Your task to perform on an android device: What's the weather today? Image 0: 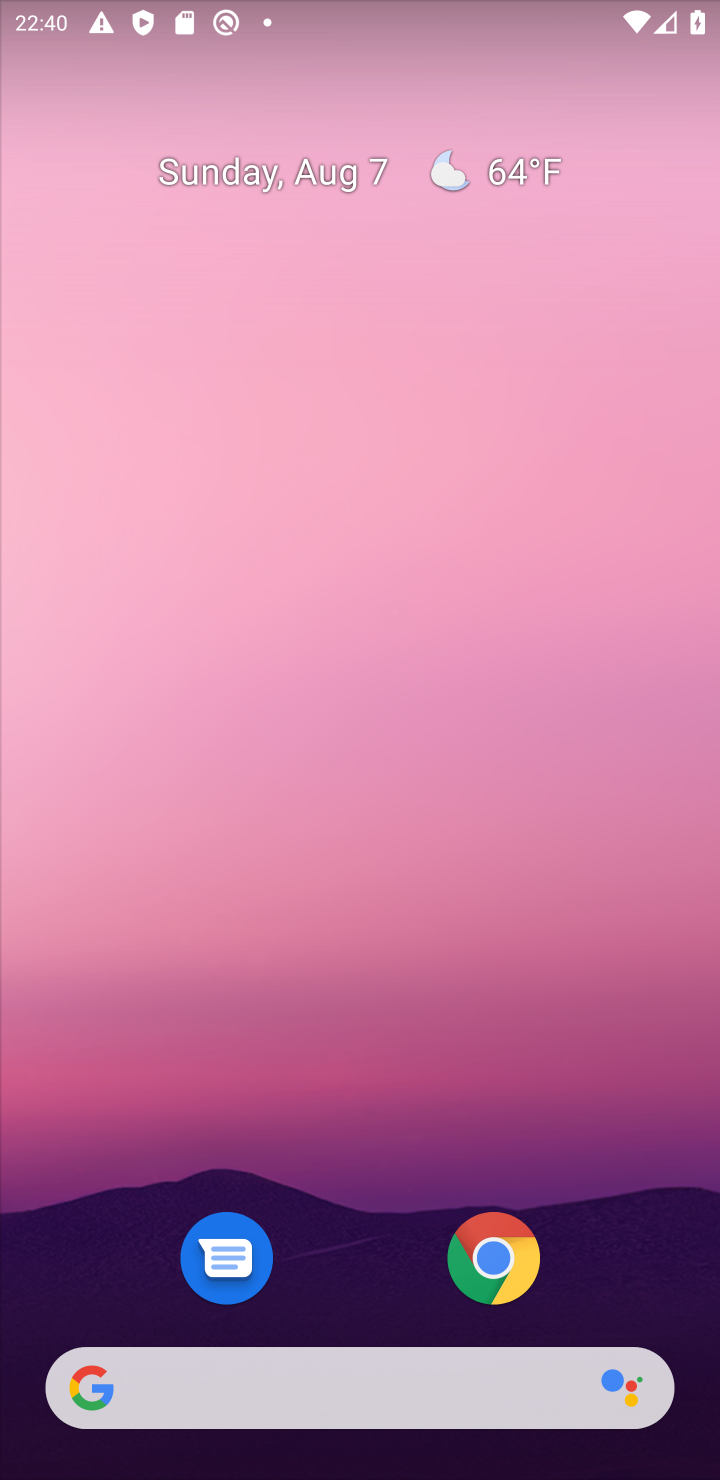
Step 0: press home button
Your task to perform on an android device: What's the weather today? Image 1: 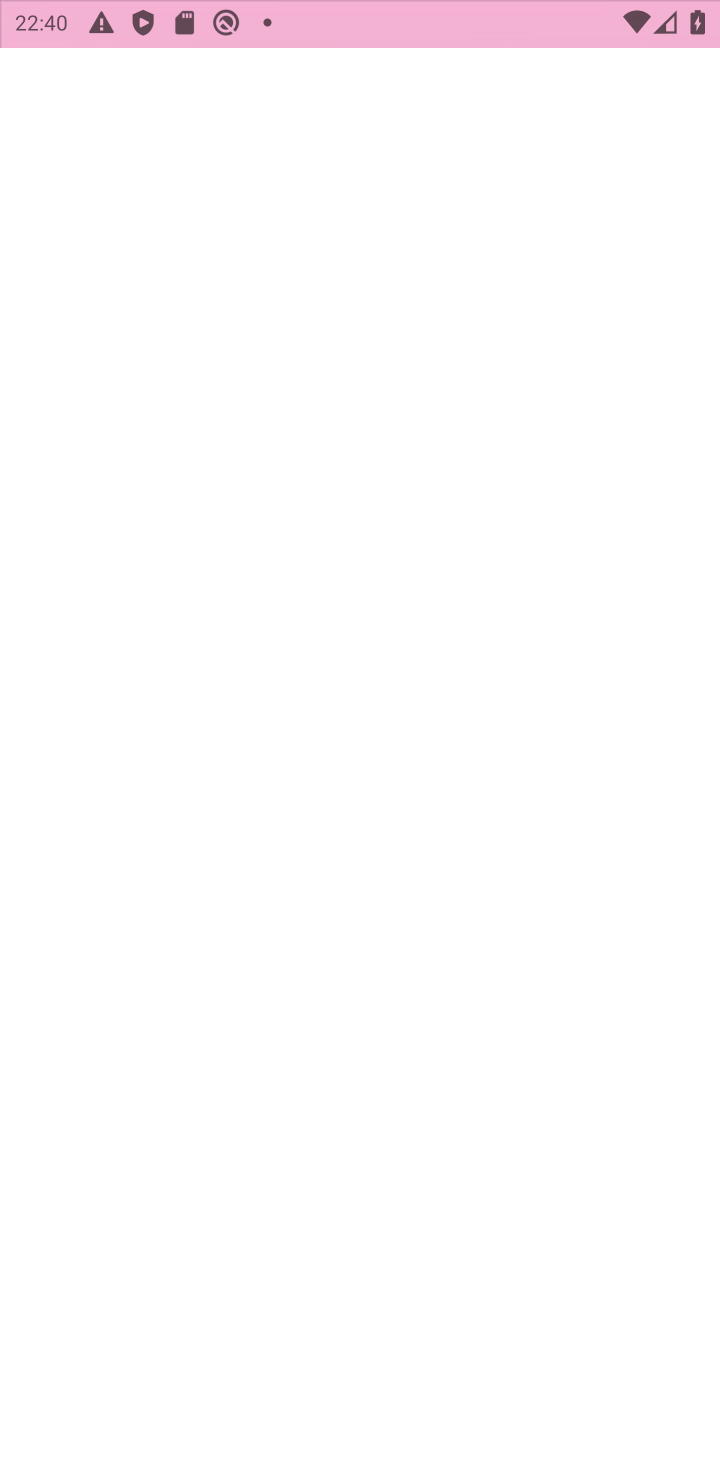
Step 1: drag from (376, 1213) to (480, 310)
Your task to perform on an android device: What's the weather today? Image 2: 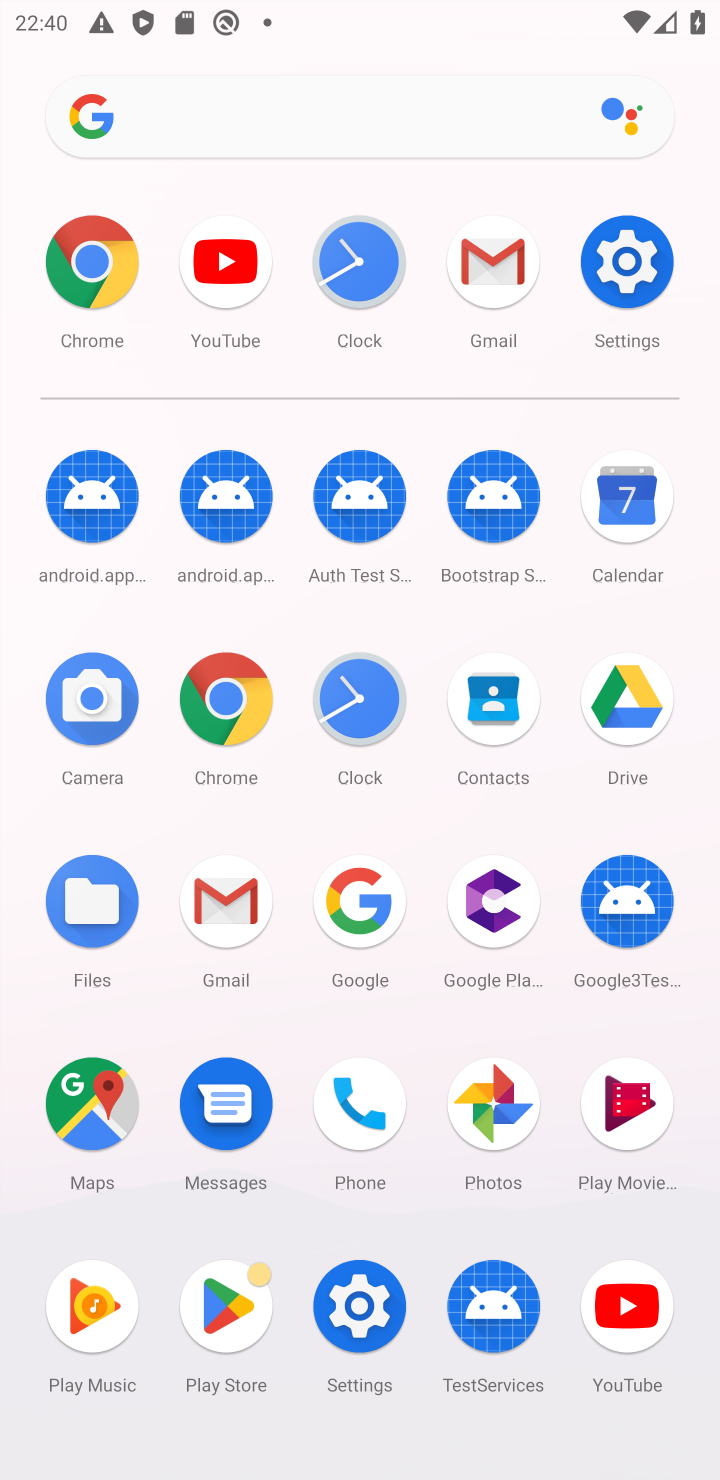
Step 2: click (223, 684)
Your task to perform on an android device: What's the weather today? Image 3: 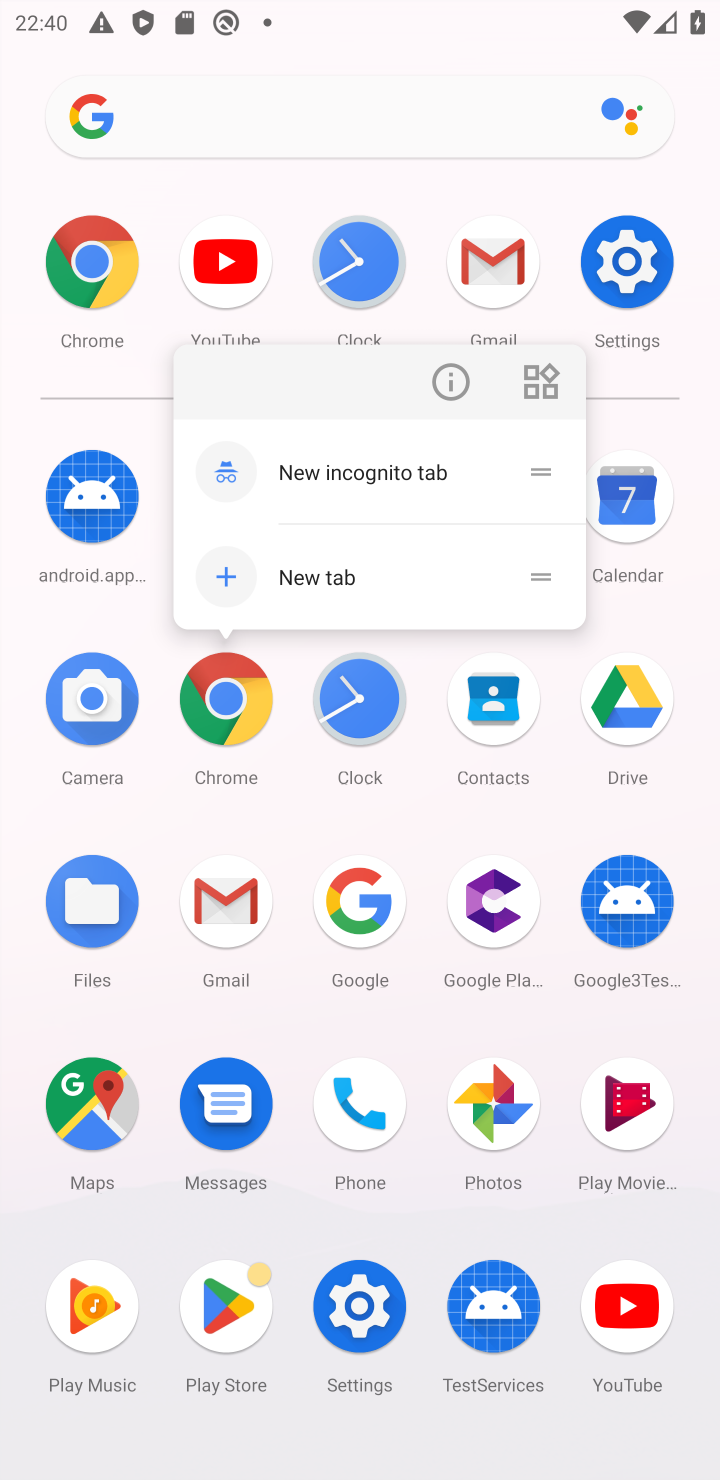
Step 3: click (223, 684)
Your task to perform on an android device: What's the weather today? Image 4: 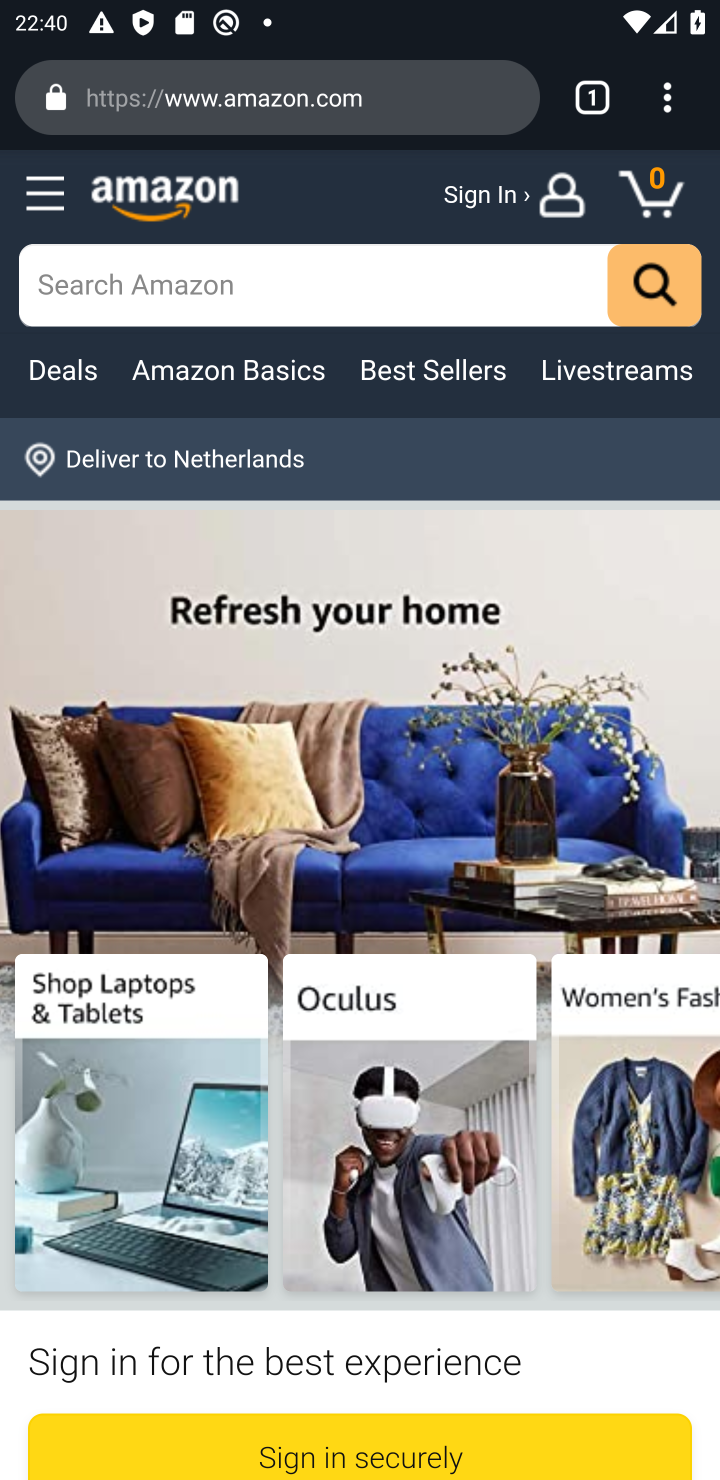
Step 4: click (303, 95)
Your task to perform on an android device: What's the weather today? Image 5: 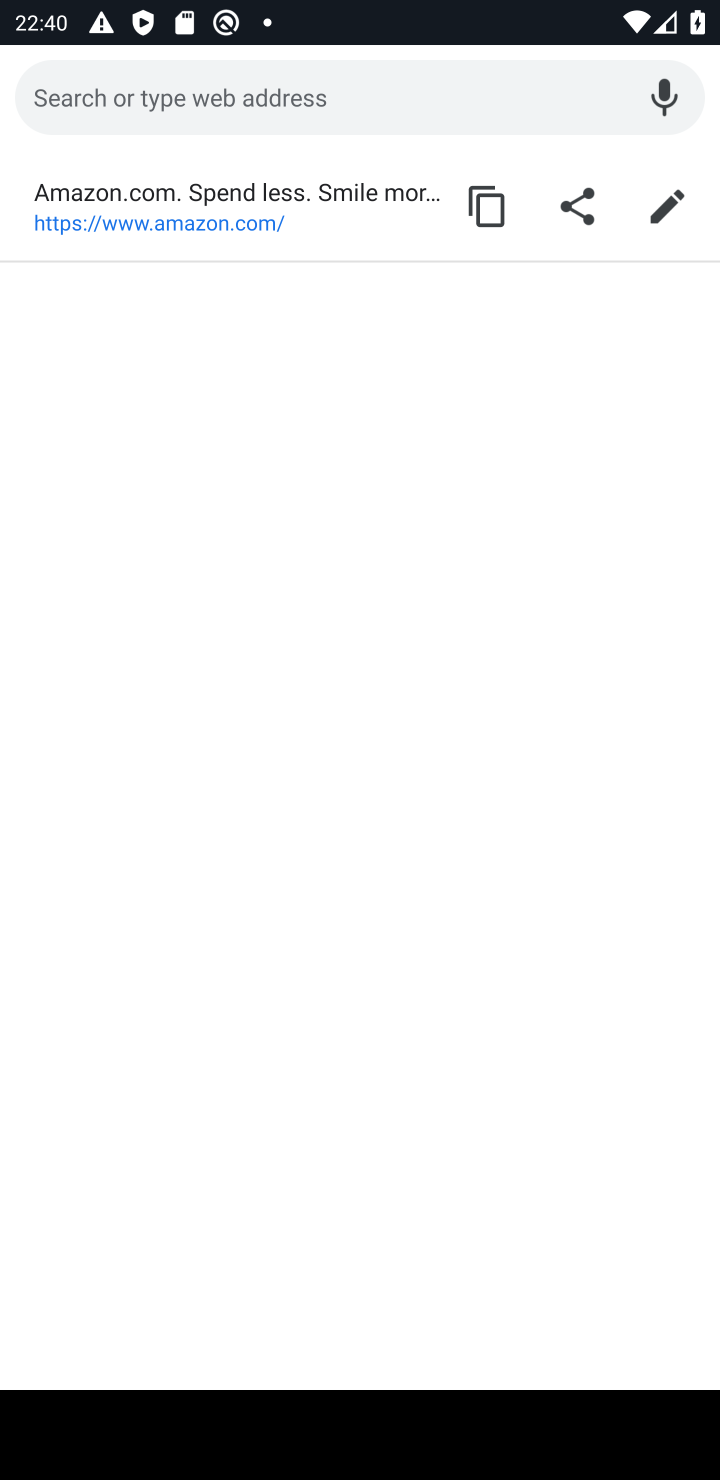
Step 5: type "What's the weather today?"
Your task to perform on an android device: What's the weather today? Image 6: 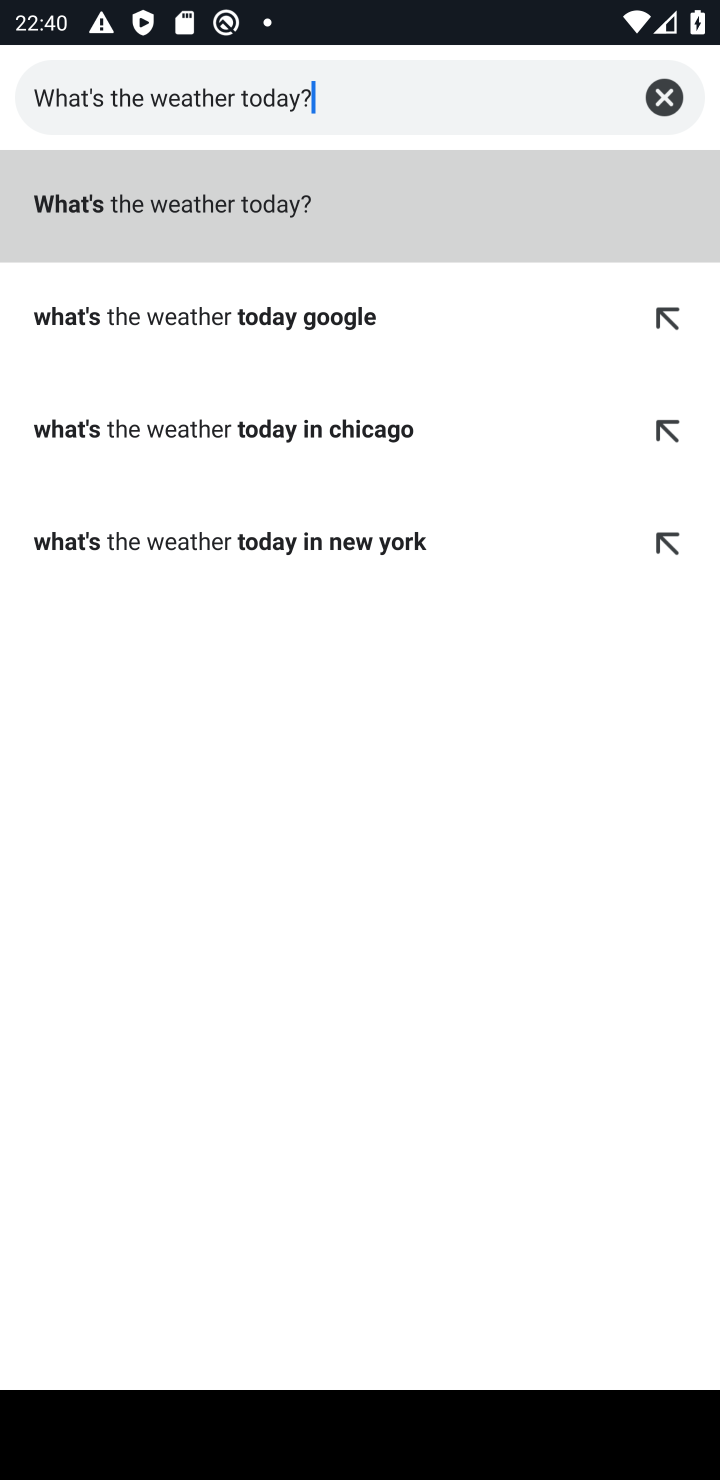
Step 6: click (268, 210)
Your task to perform on an android device: What's the weather today? Image 7: 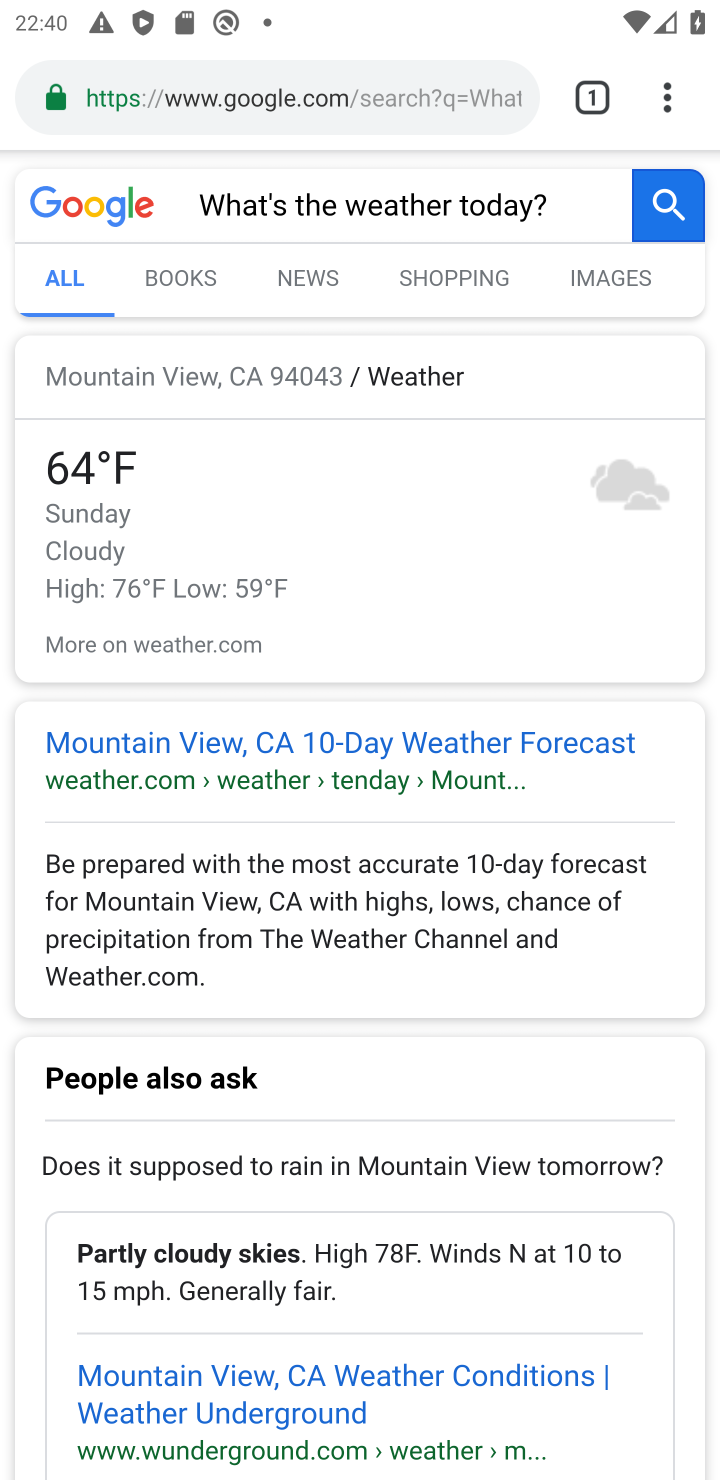
Step 7: task complete